Your task to perform on an android device: Go to calendar. Show me events next week Image 0: 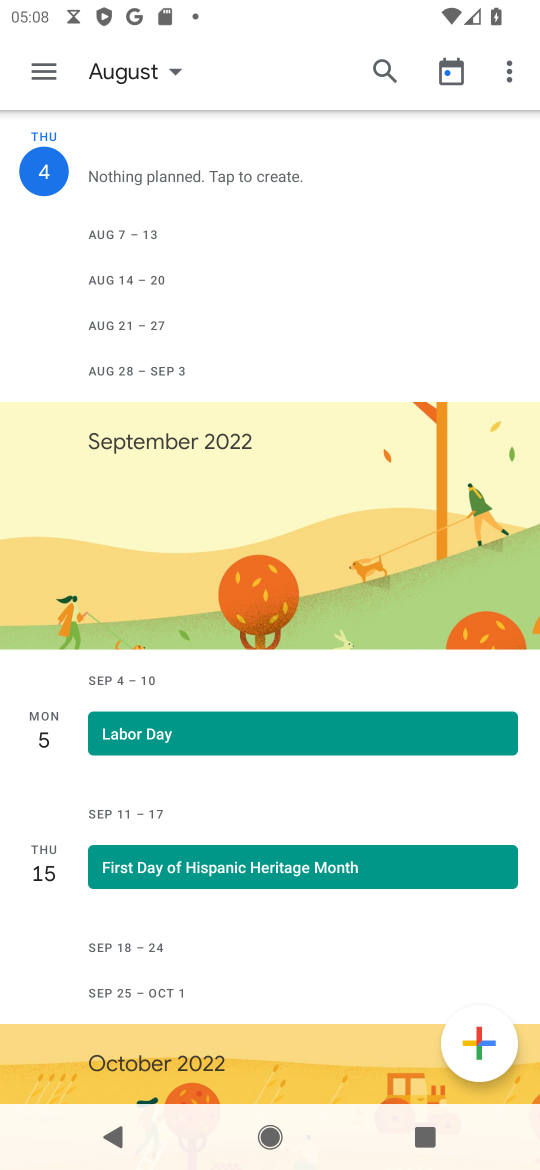
Step 0: press home button
Your task to perform on an android device: Go to calendar. Show me events next week Image 1: 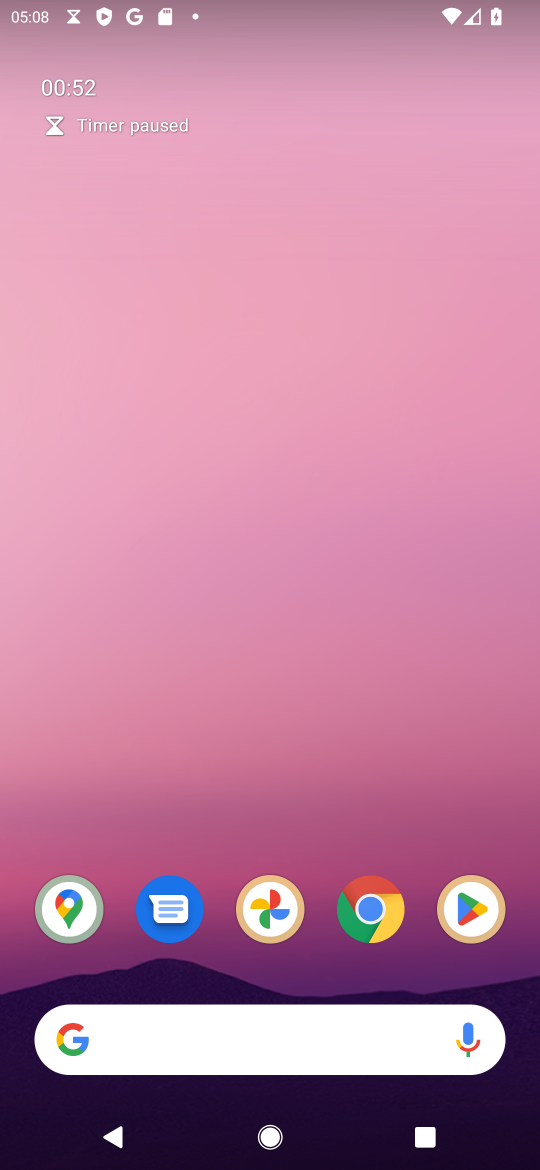
Step 1: drag from (175, 1034) to (308, 229)
Your task to perform on an android device: Go to calendar. Show me events next week Image 2: 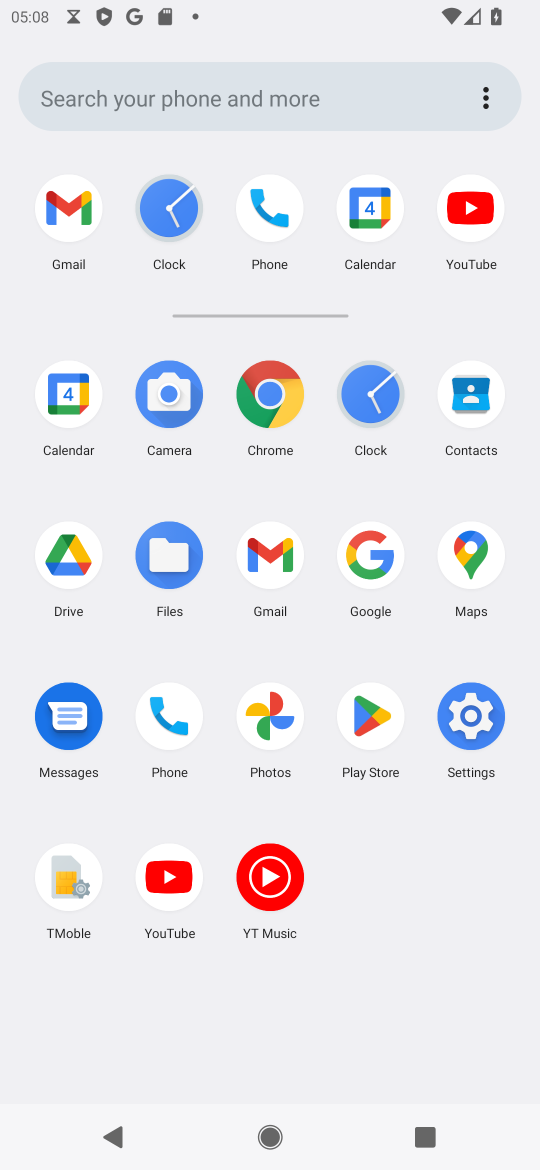
Step 2: click (69, 394)
Your task to perform on an android device: Go to calendar. Show me events next week Image 3: 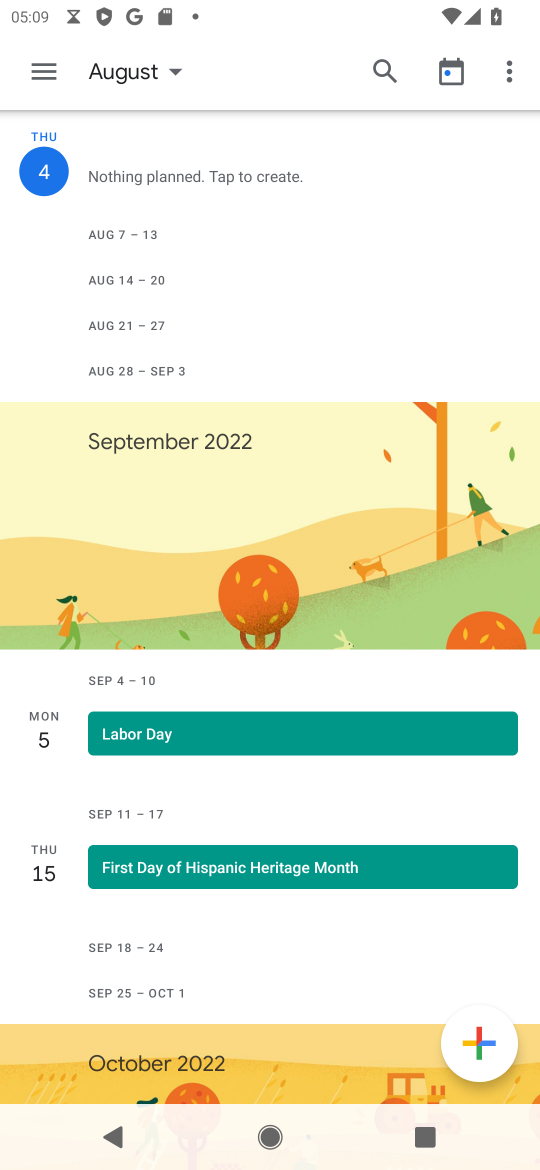
Step 3: click (129, 71)
Your task to perform on an android device: Go to calendar. Show me events next week Image 4: 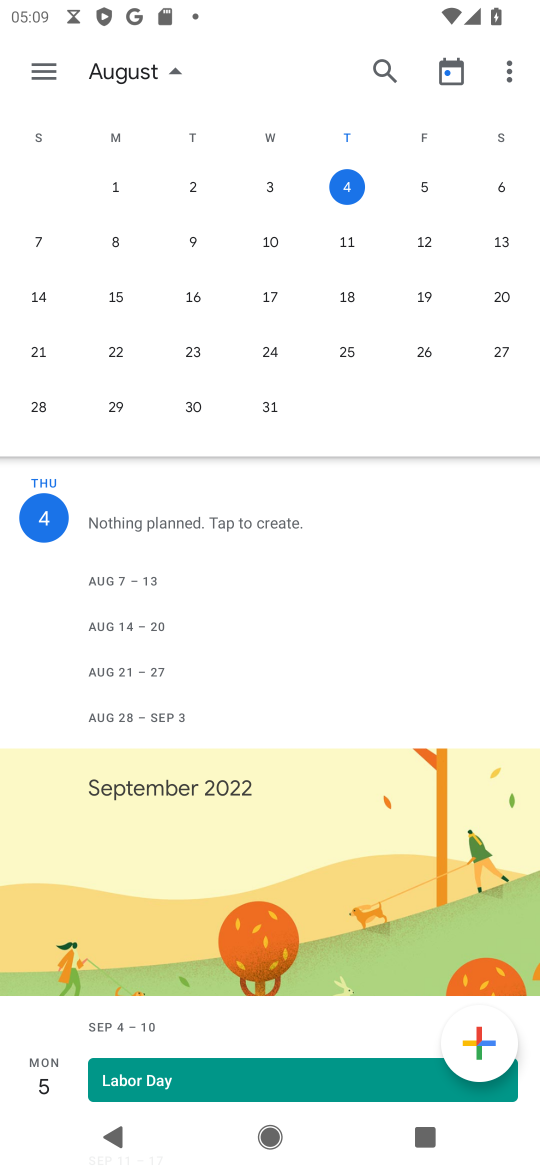
Step 4: click (37, 240)
Your task to perform on an android device: Go to calendar. Show me events next week Image 5: 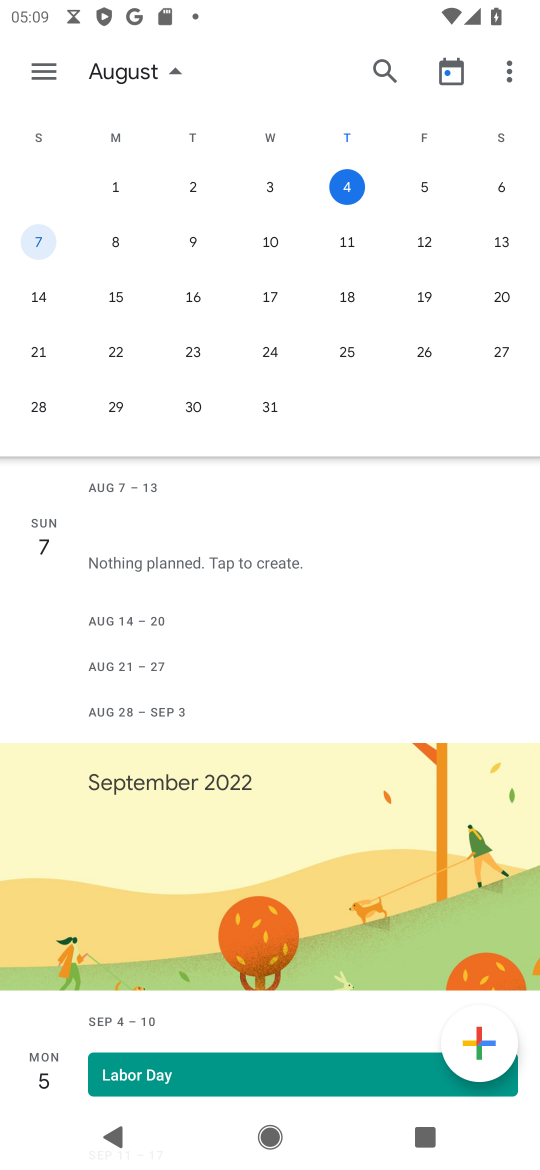
Step 5: click (45, 75)
Your task to perform on an android device: Go to calendar. Show me events next week Image 6: 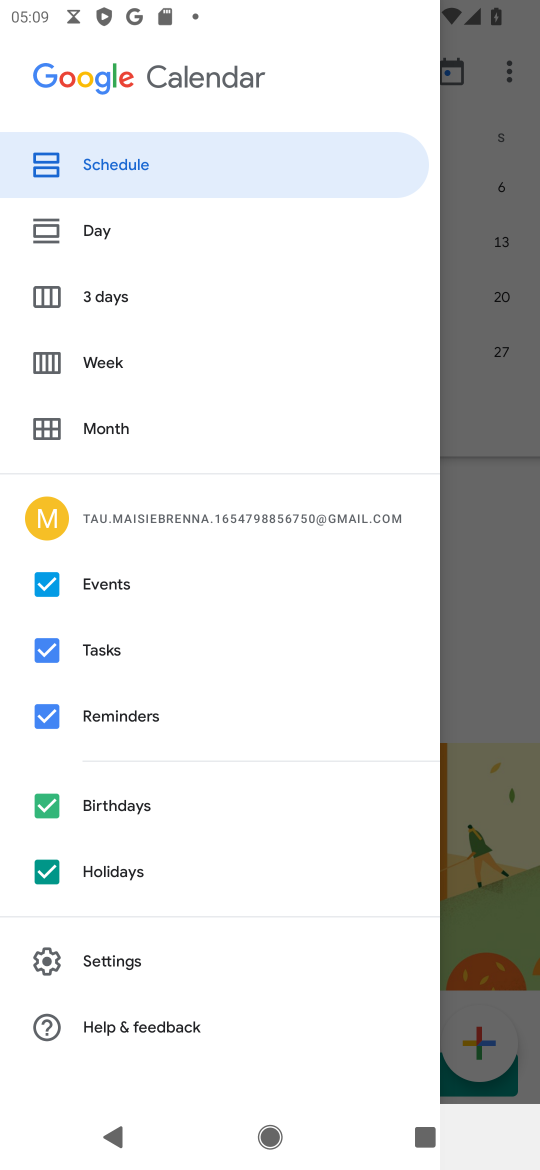
Step 6: click (94, 362)
Your task to perform on an android device: Go to calendar. Show me events next week Image 7: 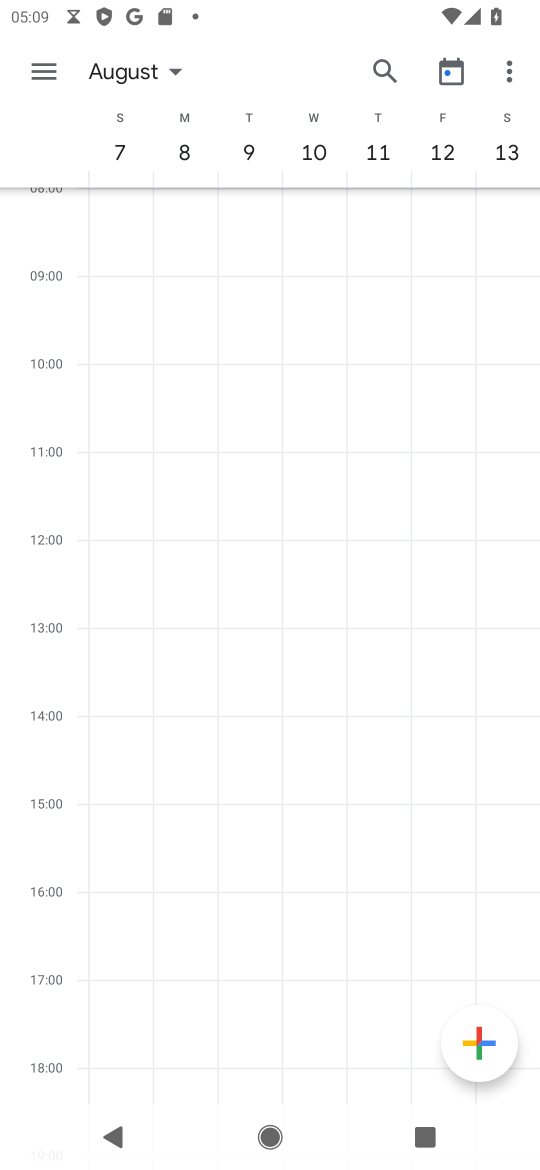
Step 7: task complete